Your task to perform on an android device: When is my next appointment? Image 0: 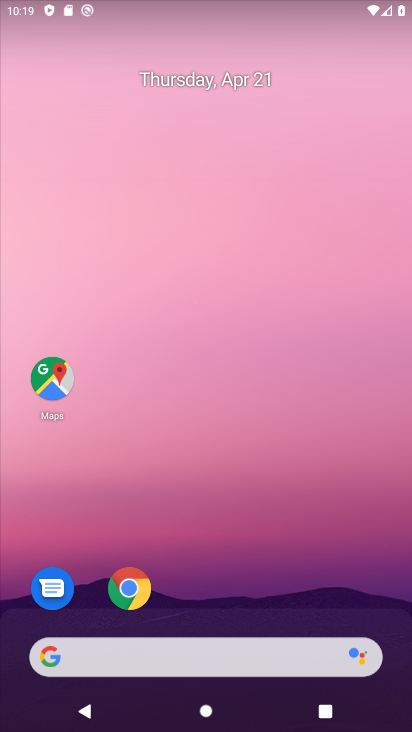
Step 0: drag from (313, 557) to (286, 25)
Your task to perform on an android device: When is my next appointment? Image 1: 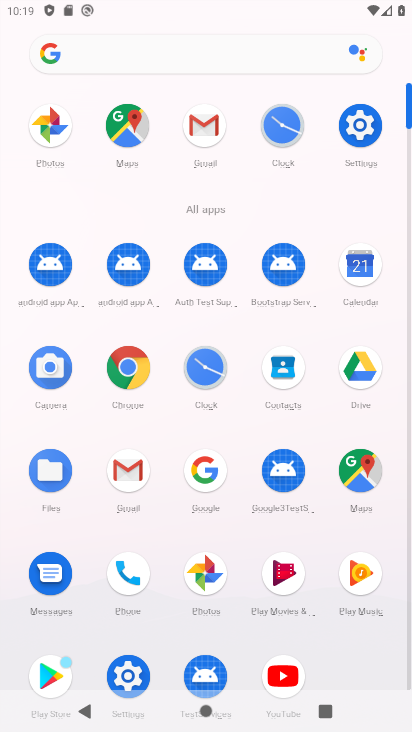
Step 1: click (359, 254)
Your task to perform on an android device: When is my next appointment? Image 2: 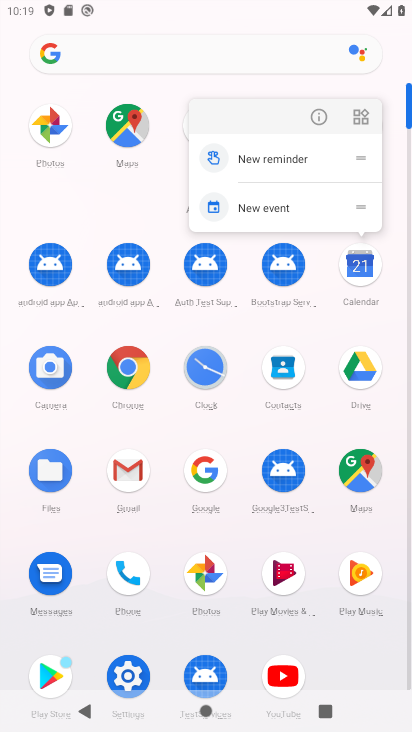
Step 2: click (364, 269)
Your task to perform on an android device: When is my next appointment? Image 3: 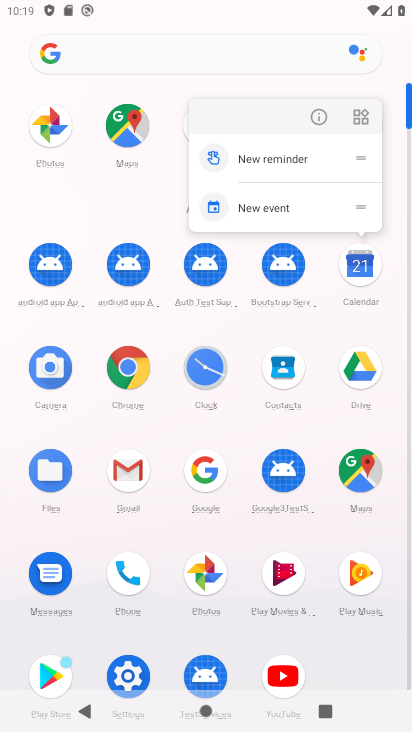
Step 3: click (360, 268)
Your task to perform on an android device: When is my next appointment? Image 4: 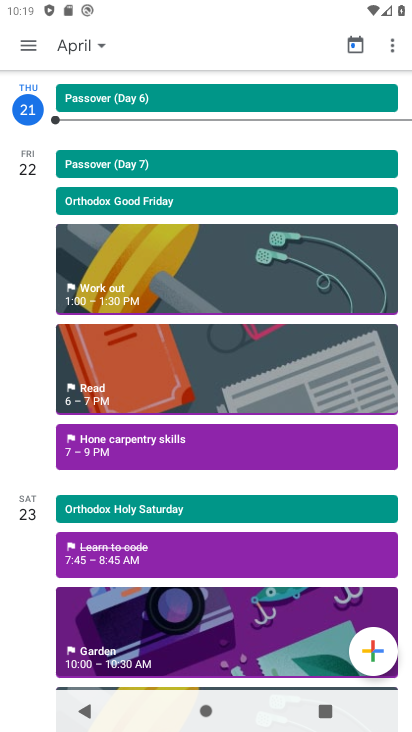
Step 4: click (139, 555)
Your task to perform on an android device: When is my next appointment? Image 5: 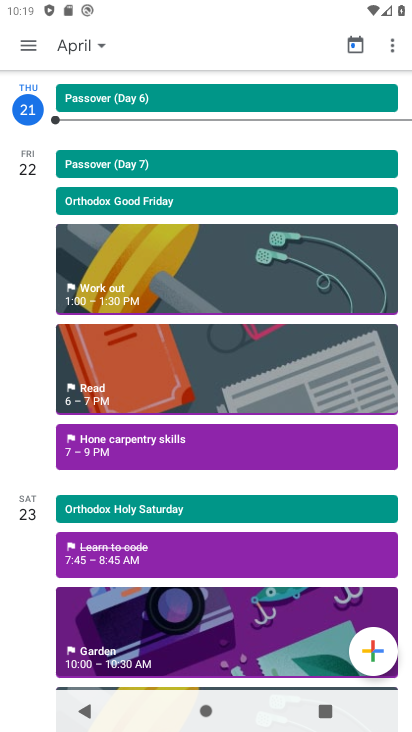
Step 5: click (173, 558)
Your task to perform on an android device: When is my next appointment? Image 6: 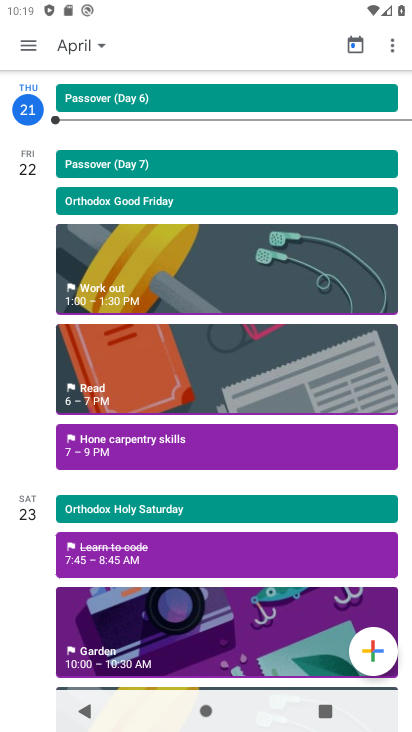
Step 6: drag from (172, 555) to (163, 246)
Your task to perform on an android device: When is my next appointment? Image 7: 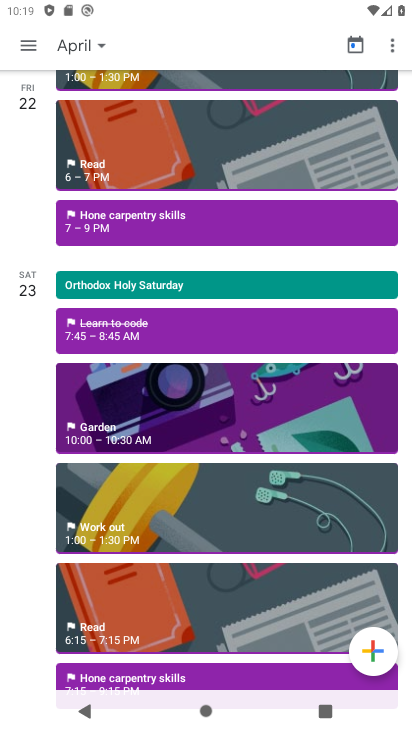
Step 7: click (122, 205)
Your task to perform on an android device: When is my next appointment? Image 8: 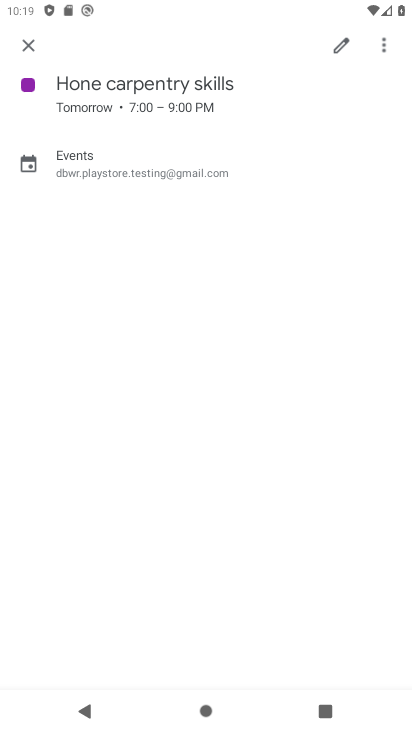
Step 8: drag from (129, 219) to (378, 354)
Your task to perform on an android device: When is my next appointment? Image 9: 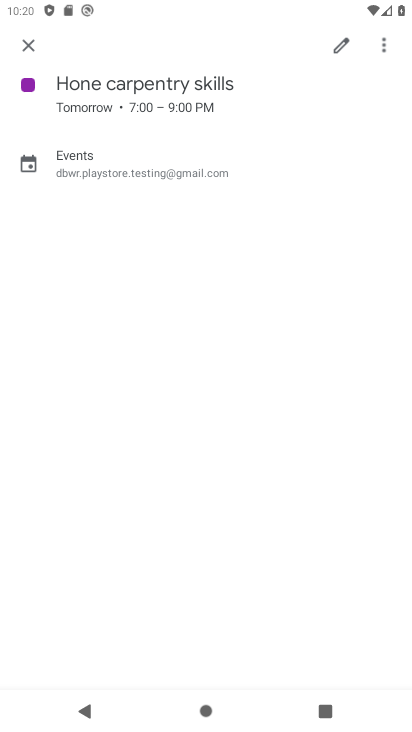
Step 9: click (35, 43)
Your task to perform on an android device: When is my next appointment? Image 10: 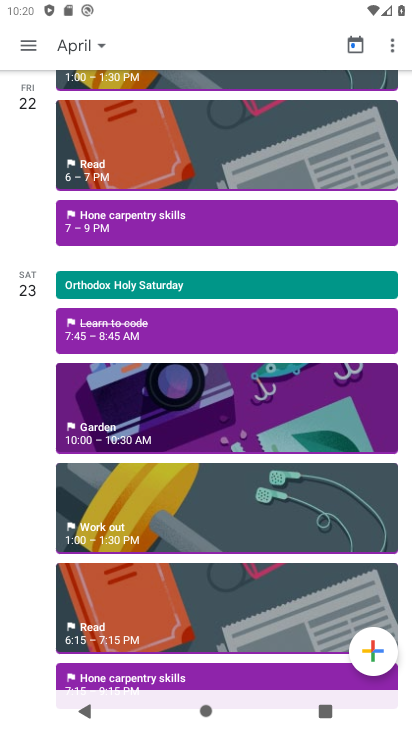
Step 10: click (144, 324)
Your task to perform on an android device: When is my next appointment? Image 11: 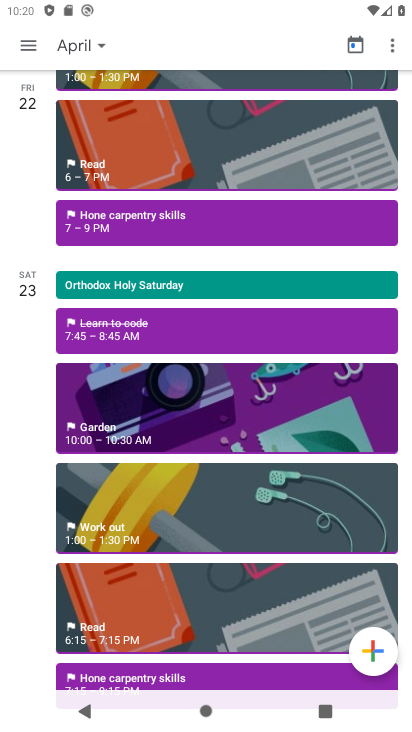
Step 11: click (235, 330)
Your task to perform on an android device: When is my next appointment? Image 12: 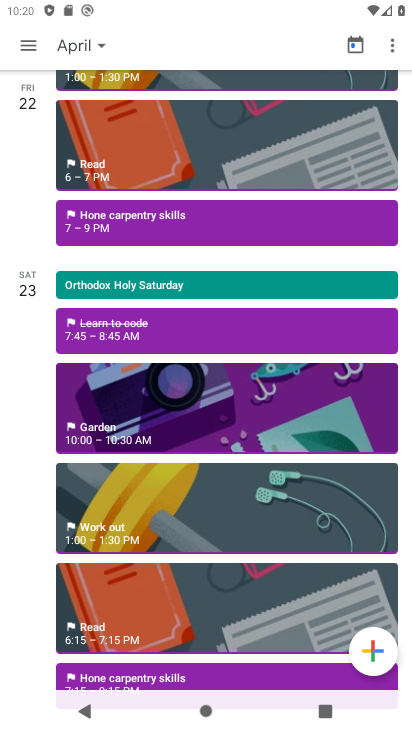
Step 12: task complete